Your task to perform on an android device: Open Google Chrome and open the bookmarks view Image 0: 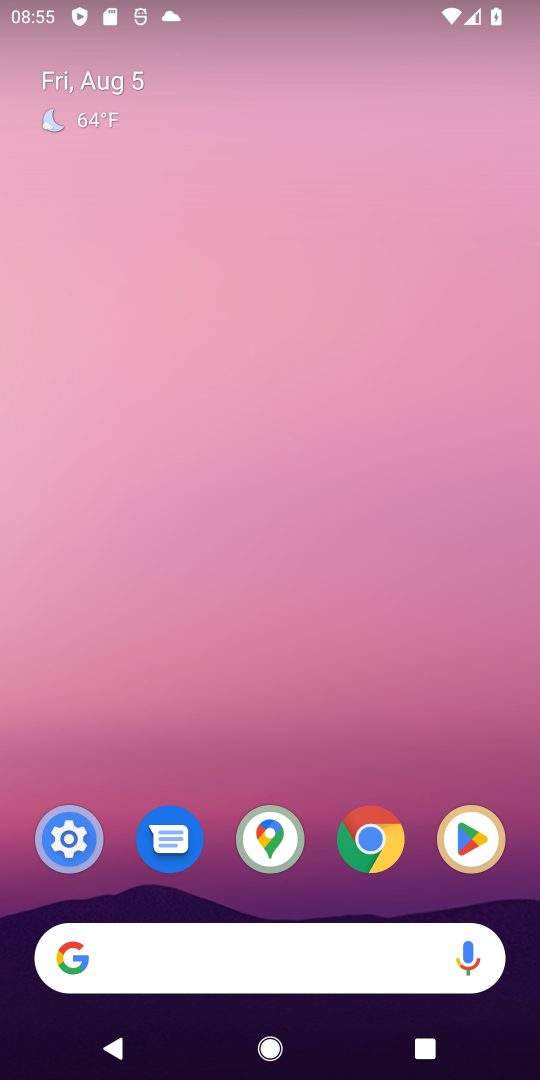
Step 0: click (367, 846)
Your task to perform on an android device: Open Google Chrome and open the bookmarks view Image 1: 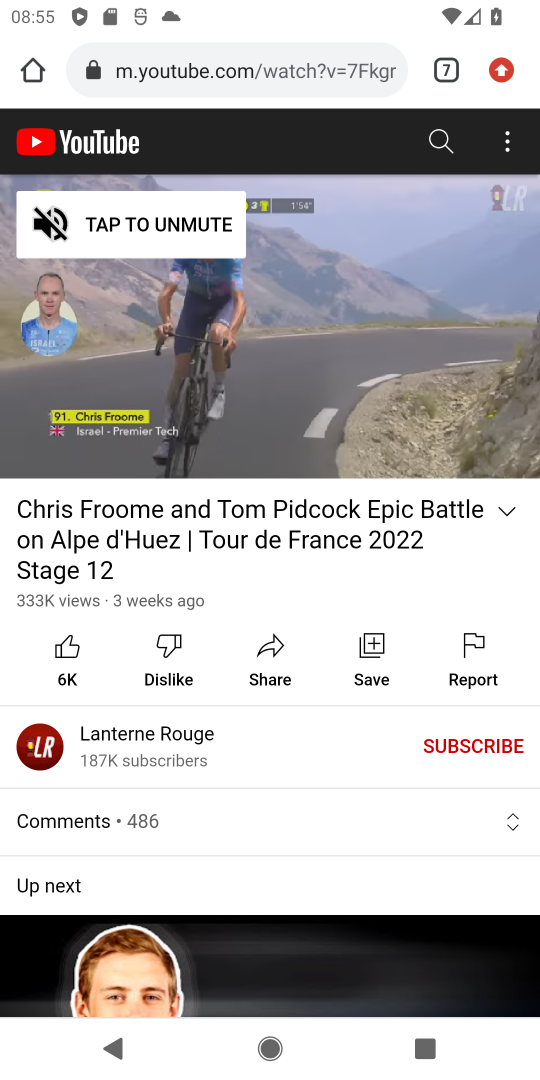
Step 1: click (501, 72)
Your task to perform on an android device: Open Google Chrome and open the bookmarks view Image 2: 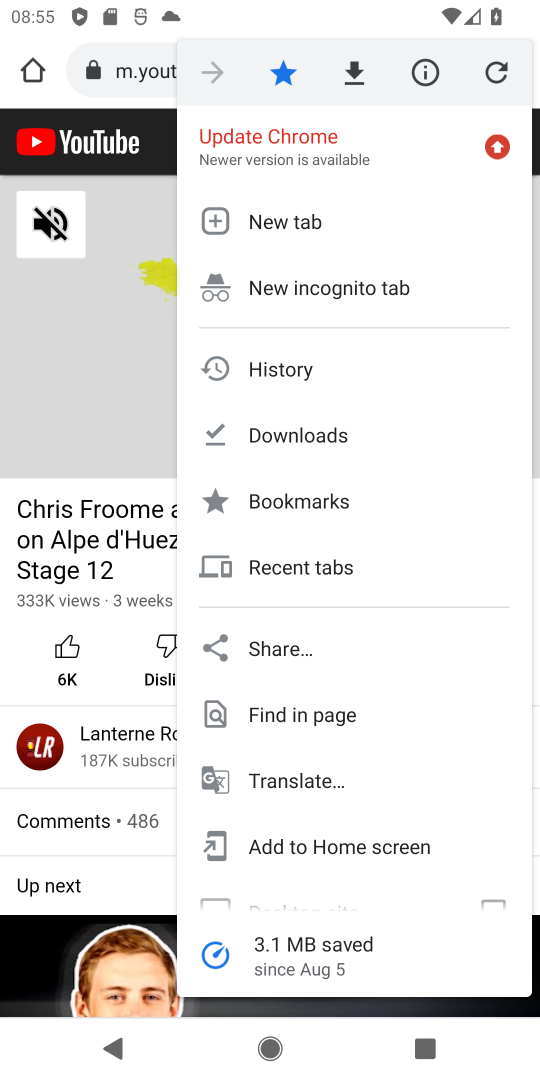
Step 2: drag from (286, 770) to (318, 461)
Your task to perform on an android device: Open Google Chrome and open the bookmarks view Image 3: 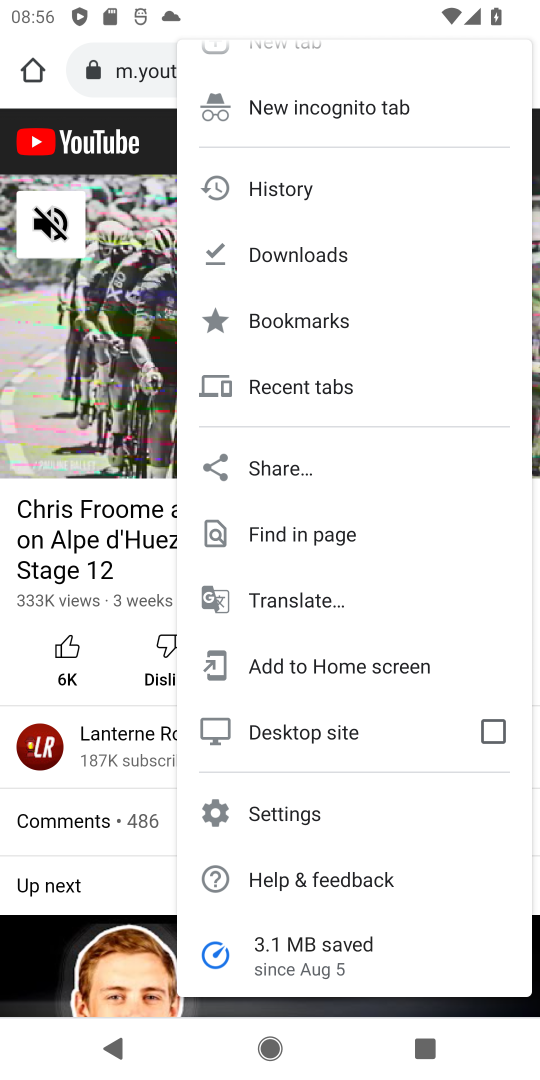
Step 3: click (289, 321)
Your task to perform on an android device: Open Google Chrome and open the bookmarks view Image 4: 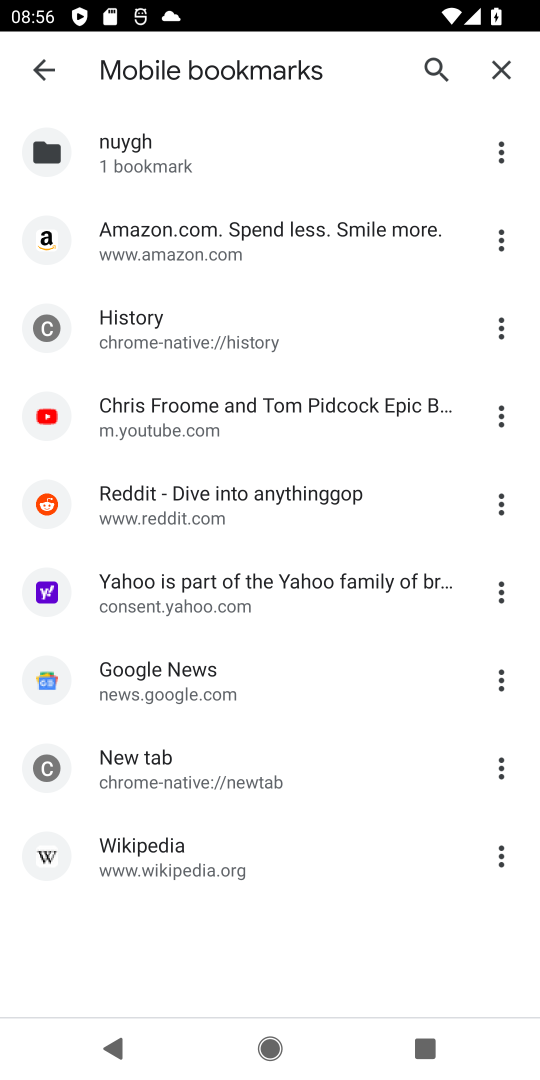
Step 4: task complete